Your task to perform on an android device: View the shopping cart on ebay.com. Search for dell alienware on ebay.com, select the first entry, and add it to the cart. Image 0: 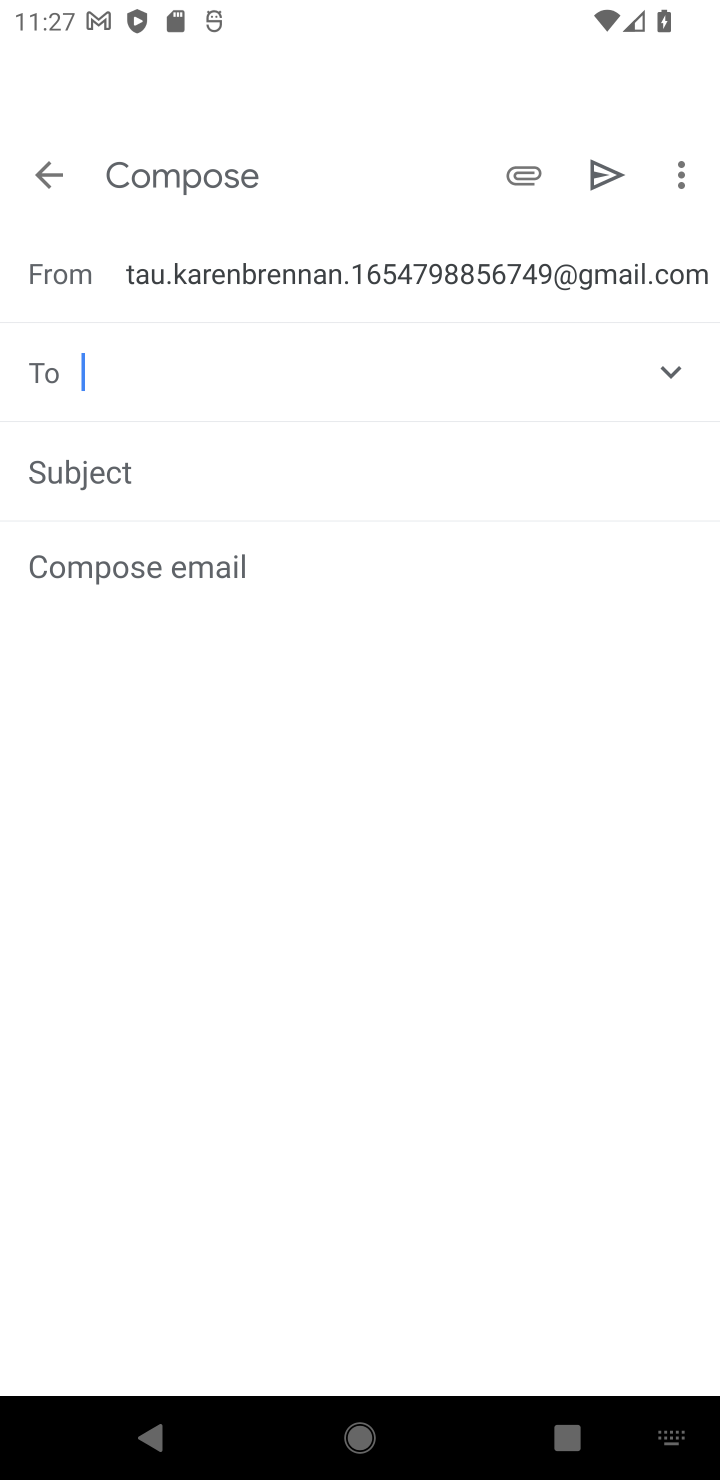
Step 0: press home button
Your task to perform on an android device: View the shopping cart on ebay.com. Search for dell alienware on ebay.com, select the first entry, and add it to the cart. Image 1: 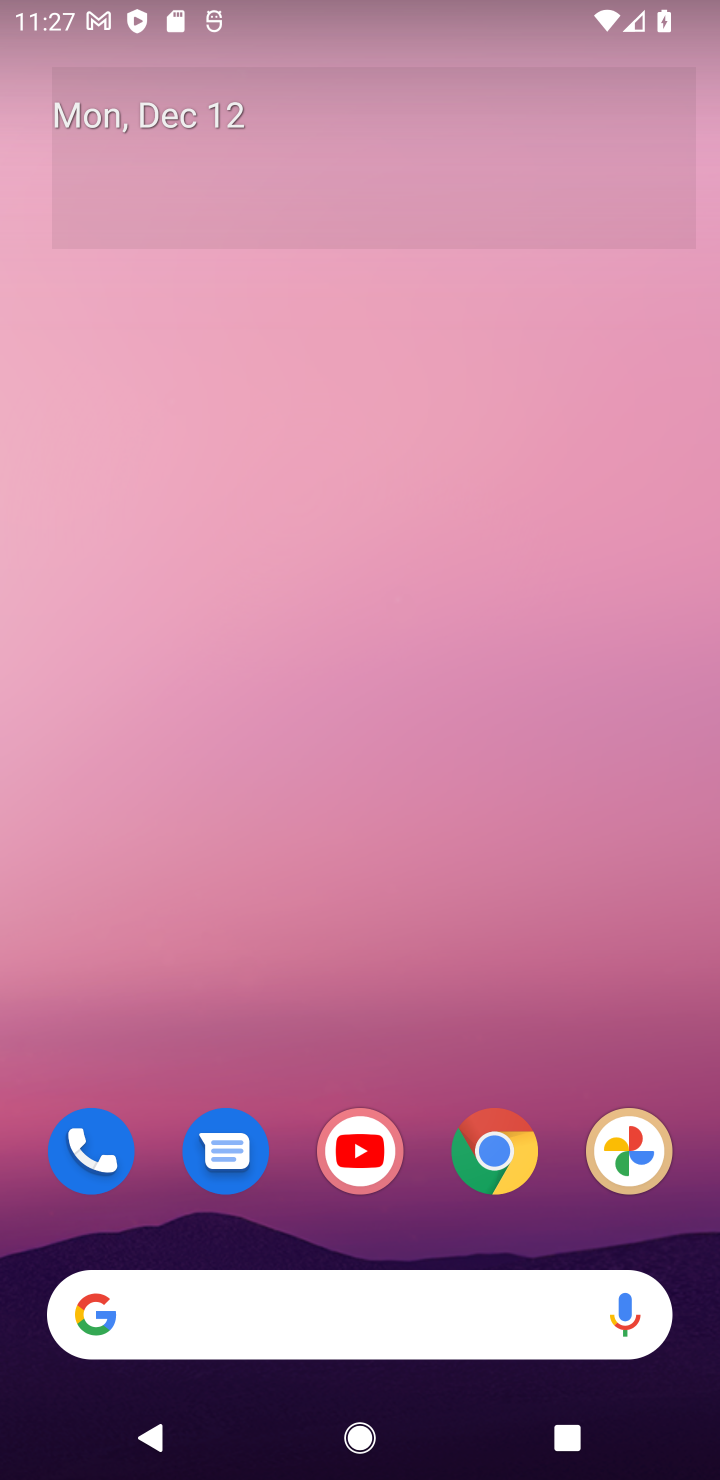
Step 1: drag from (224, 489) to (203, 127)
Your task to perform on an android device: View the shopping cart on ebay.com. Search for dell alienware on ebay.com, select the first entry, and add it to the cart. Image 2: 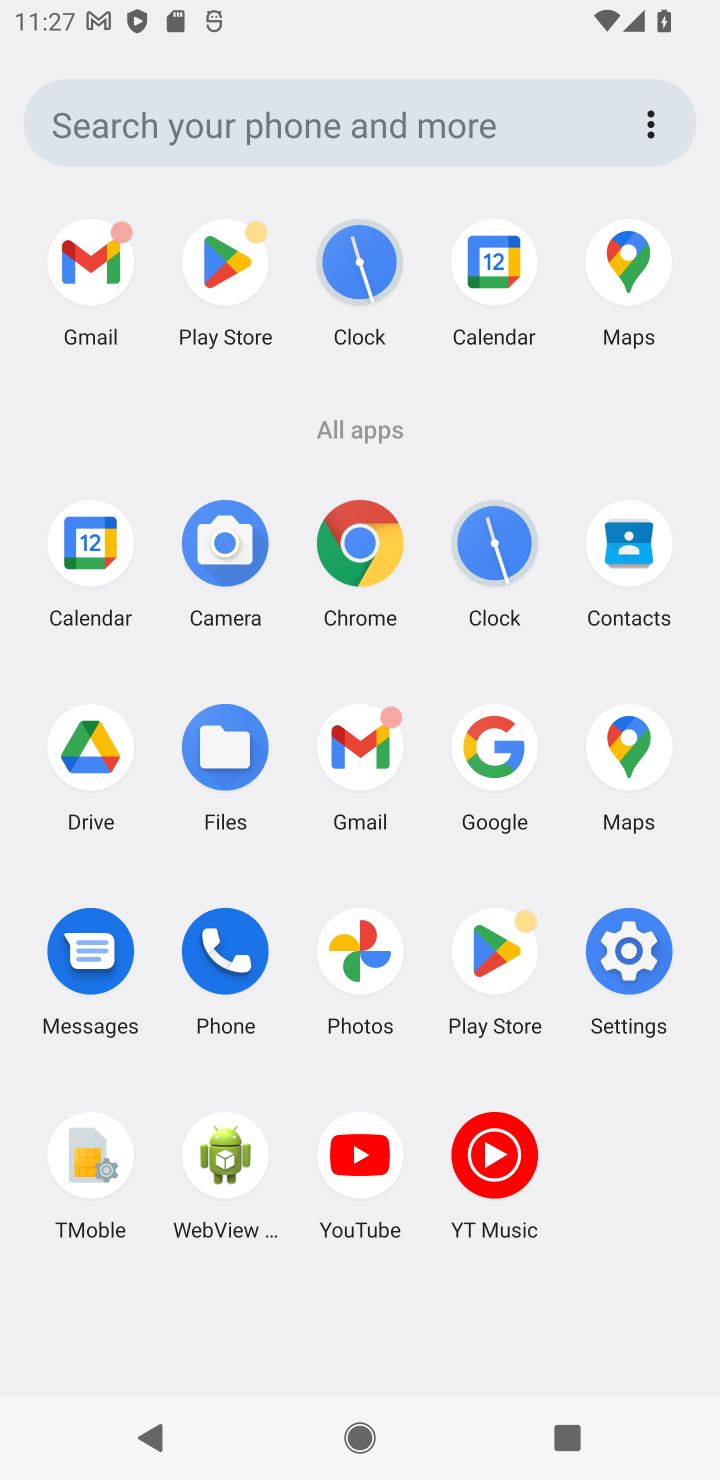
Step 2: click (518, 763)
Your task to perform on an android device: View the shopping cart on ebay.com. Search for dell alienware on ebay.com, select the first entry, and add it to the cart. Image 3: 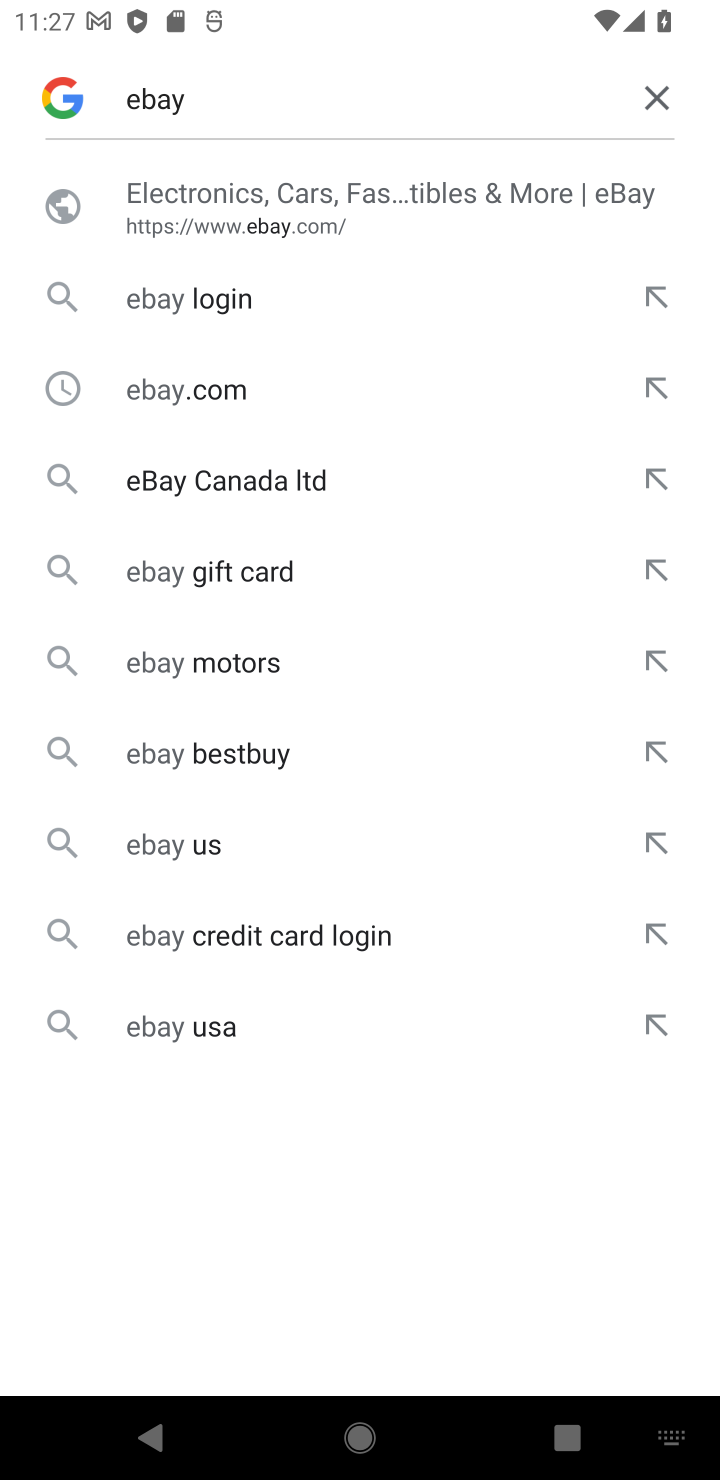
Step 3: click (664, 100)
Your task to perform on an android device: View the shopping cart on ebay.com. Search for dell alienware on ebay.com, select the first entry, and add it to the cart. Image 4: 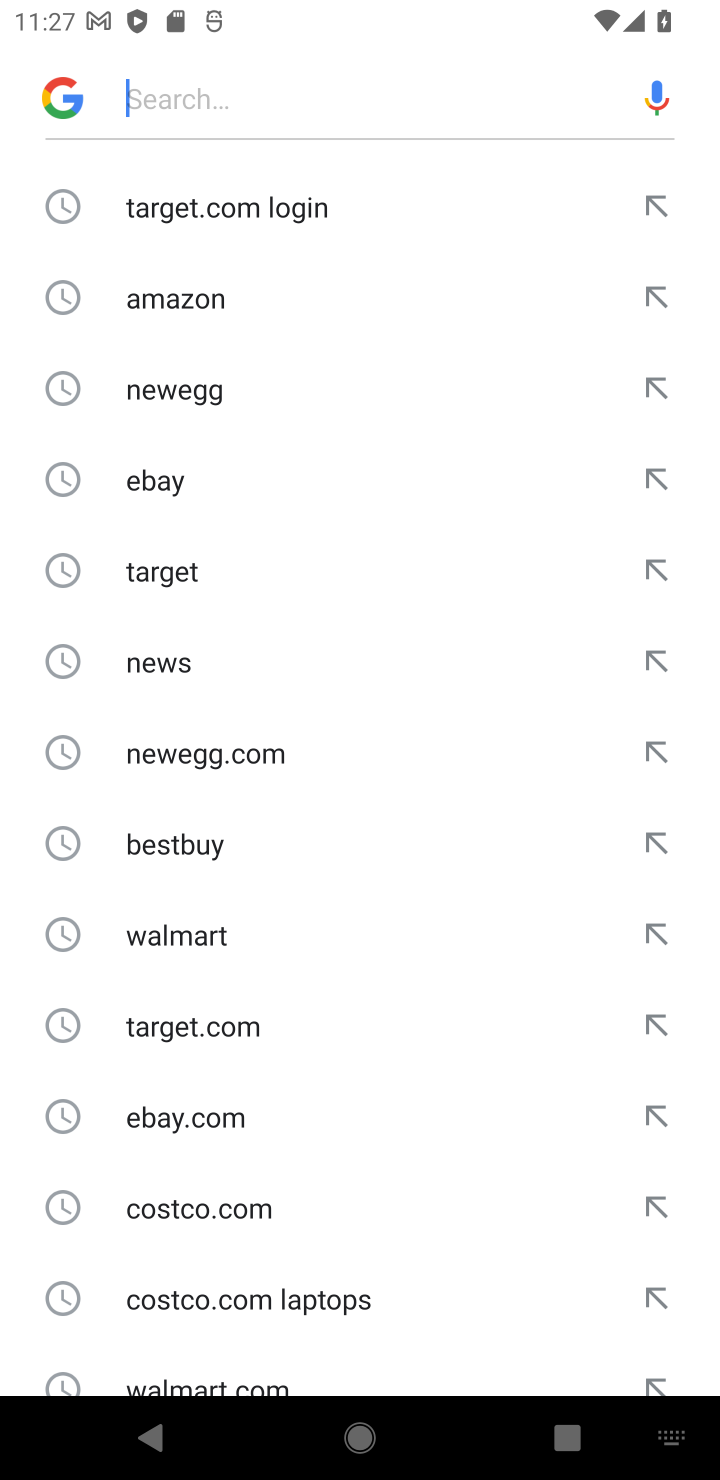
Step 4: click (161, 478)
Your task to perform on an android device: View the shopping cart on ebay.com. Search for dell alienware on ebay.com, select the first entry, and add it to the cart. Image 5: 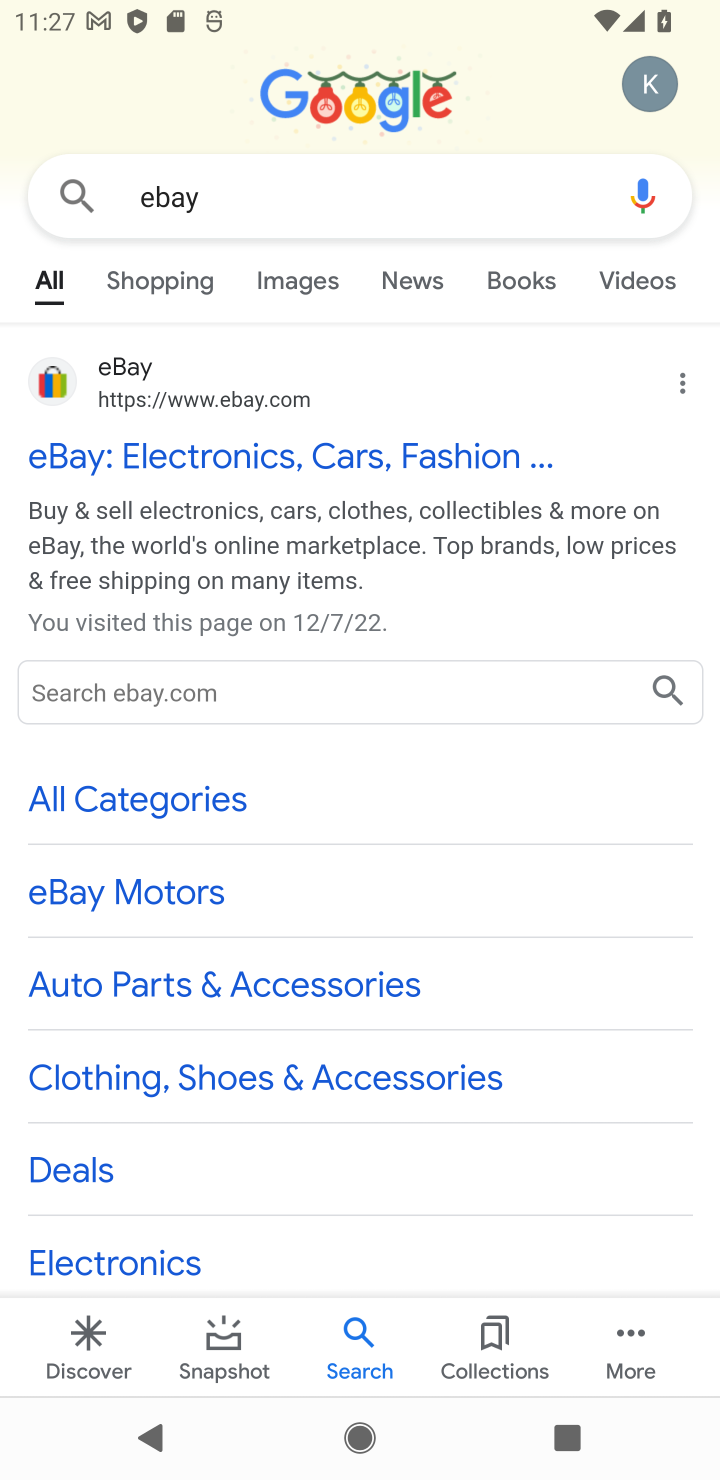
Step 5: click (225, 460)
Your task to perform on an android device: View the shopping cart on ebay.com. Search for dell alienware on ebay.com, select the first entry, and add it to the cart. Image 6: 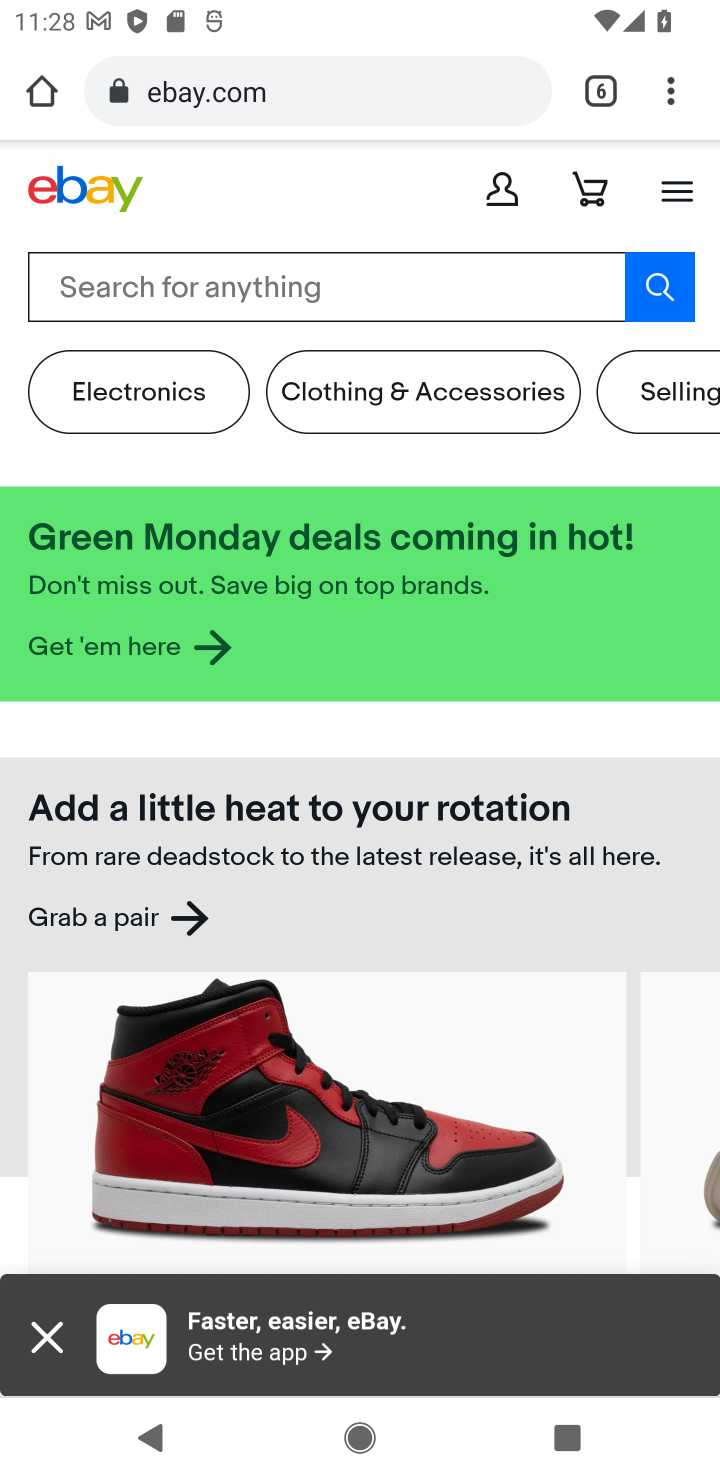
Step 6: click (264, 279)
Your task to perform on an android device: View the shopping cart on ebay.com. Search for dell alienware on ebay.com, select the first entry, and add it to the cart. Image 7: 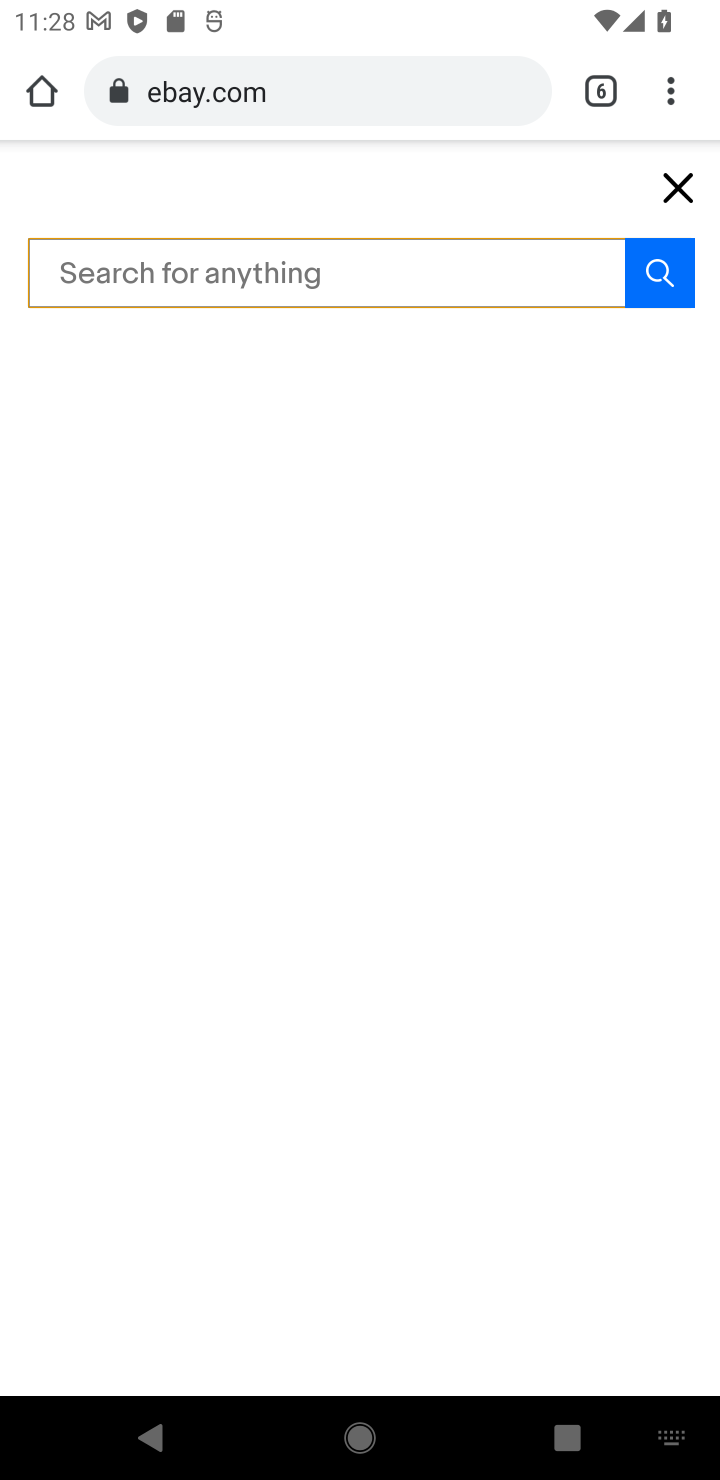
Step 7: type "dell alienware"
Your task to perform on an android device: View the shopping cart on ebay.com. Search for dell alienware on ebay.com, select the first entry, and add it to the cart. Image 8: 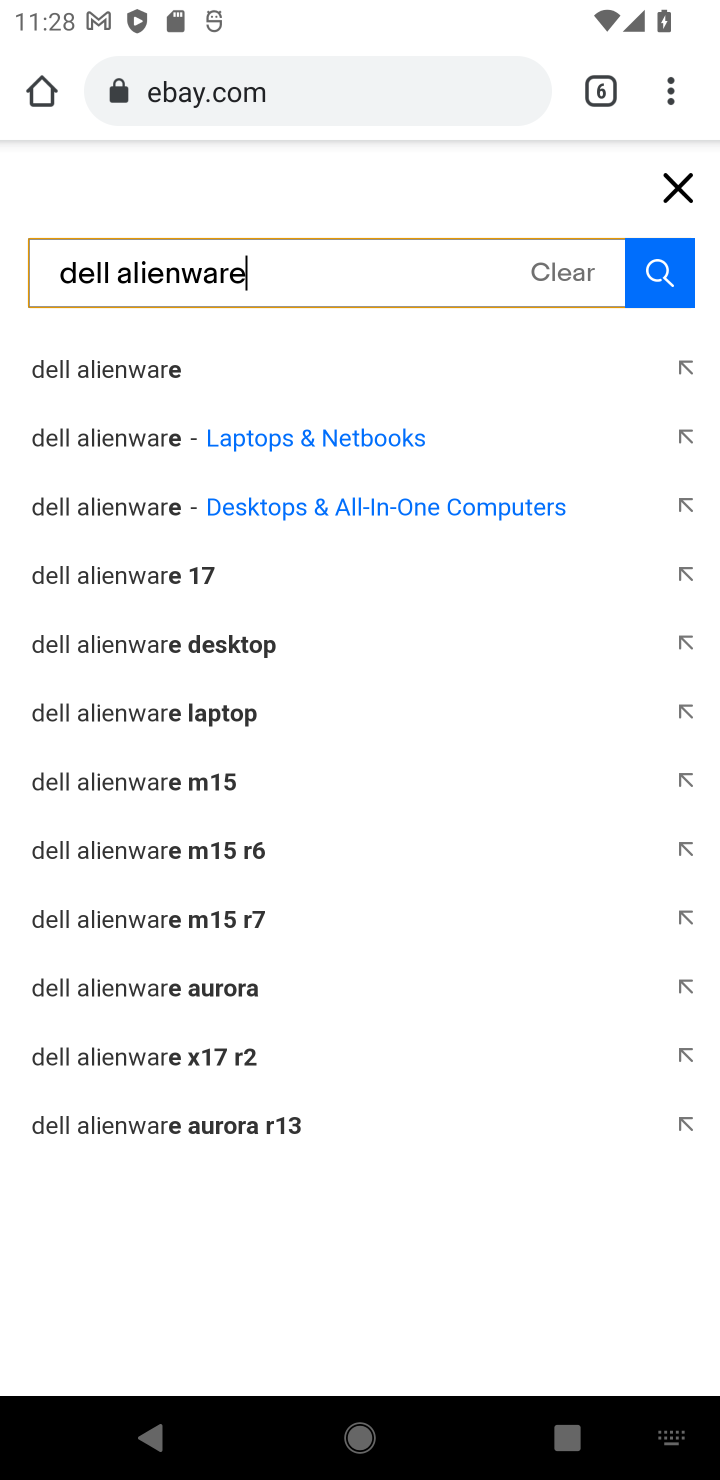
Step 8: click (75, 388)
Your task to perform on an android device: View the shopping cart on ebay.com. Search for dell alienware on ebay.com, select the first entry, and add it to the cart. Image 9: 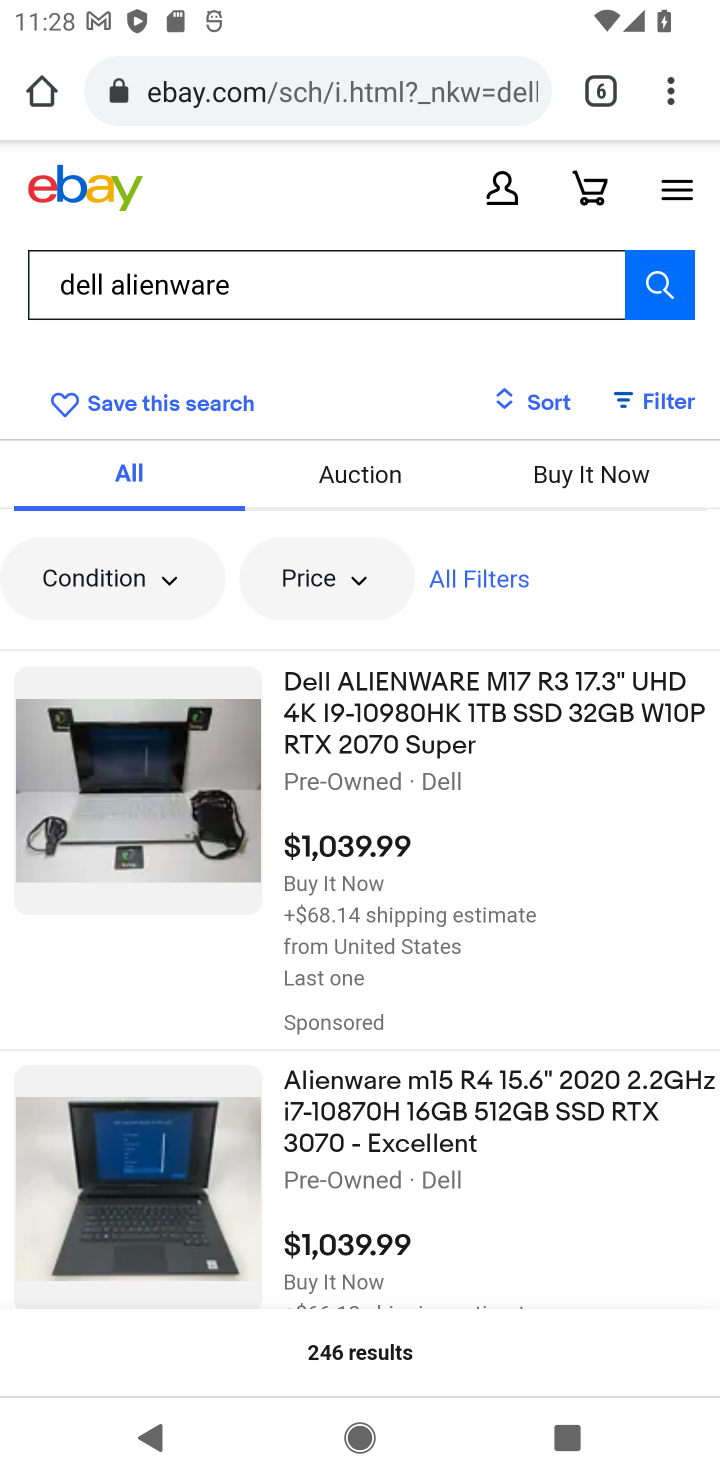
Step 9: click (421, 744)
Your task to perform on an android device: View the shopping cart on ebay.com. Search for dell alienware on ebay.com, select the first entry, and add it to the cart. Image 10: 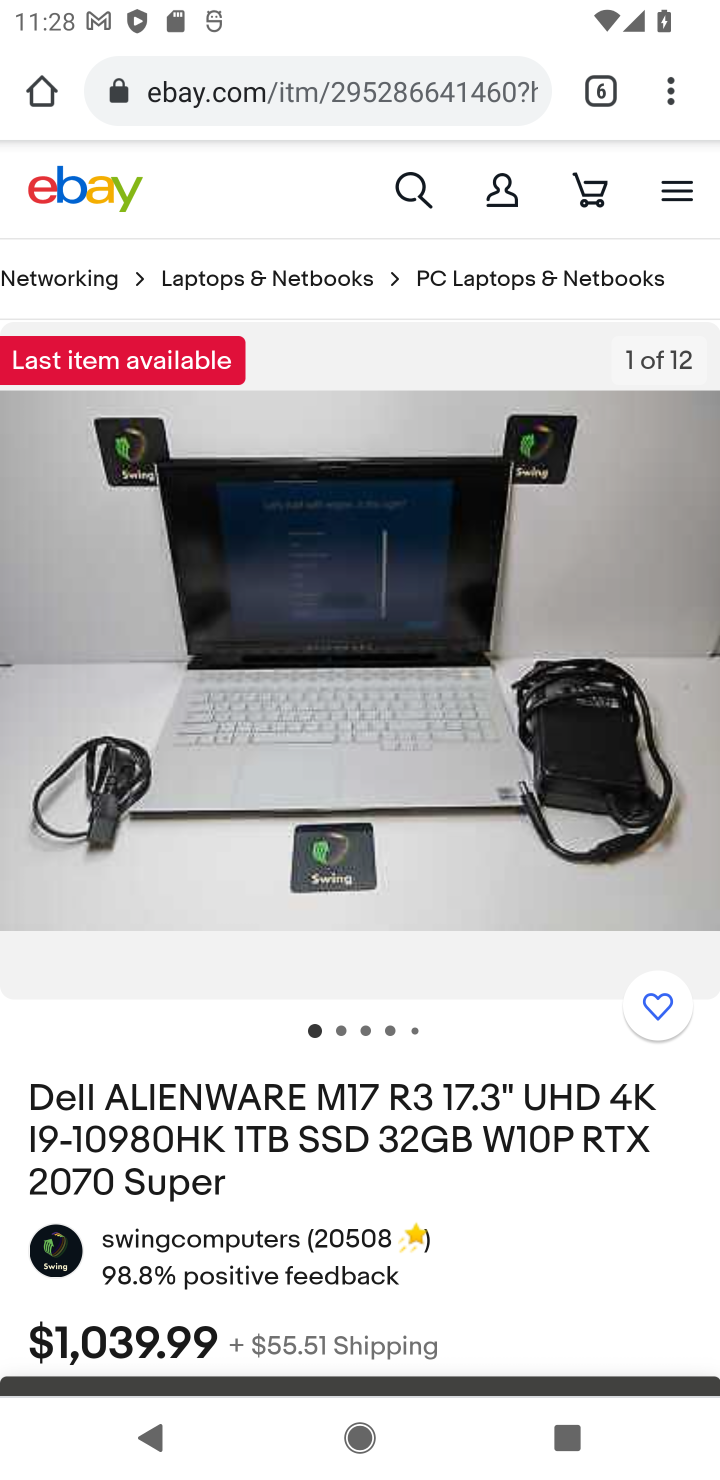
Step 10: drag from (394, 1075) to (405, 402)
Your task to perform on an android device: View the shopping cart on ebay.com. Search for dell alienware on ebay.com, select the first entry, and add it to the cart. Image 11: 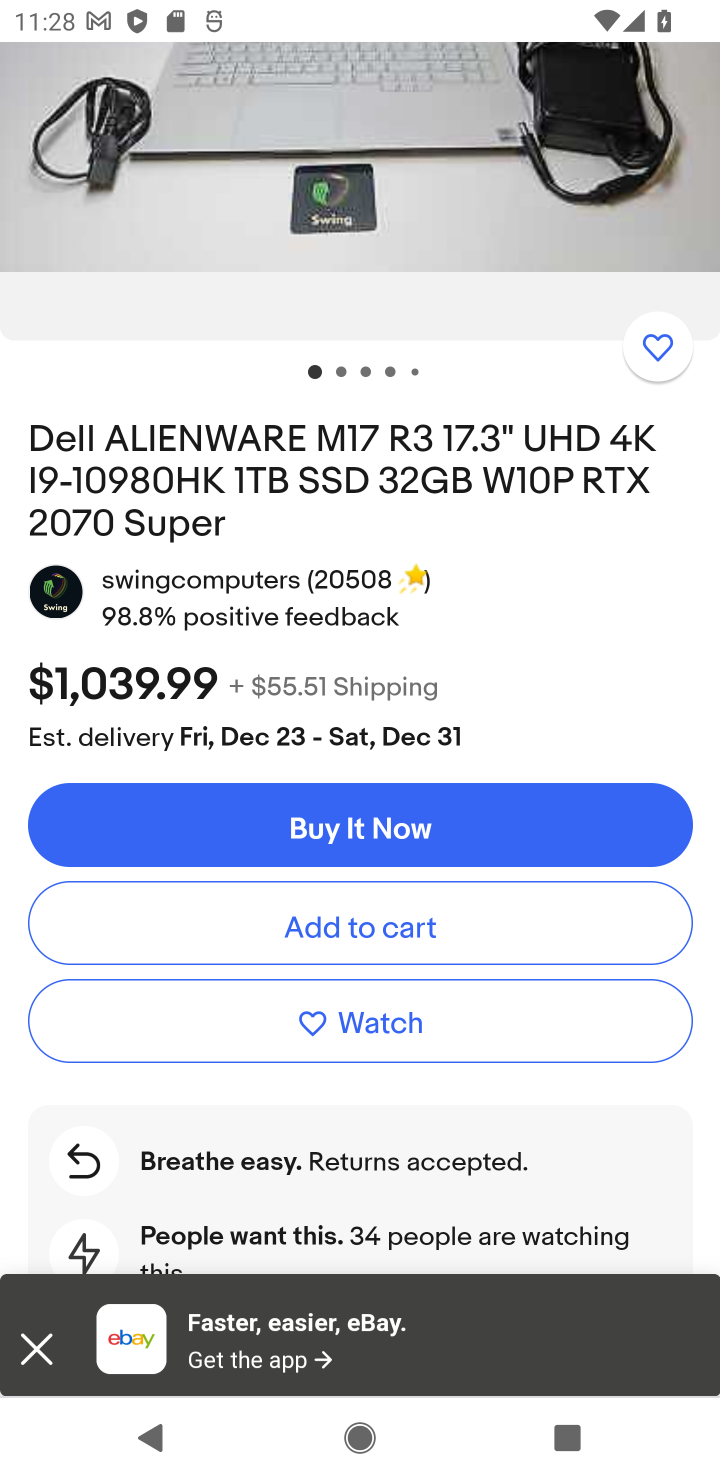
Step 11: click (362, 914)
Your task to perform on an android device: View the shopping cart on ebay.com. Search for dell alienware on ebay.com, select the first entry, and add it to the cart. Image 12: 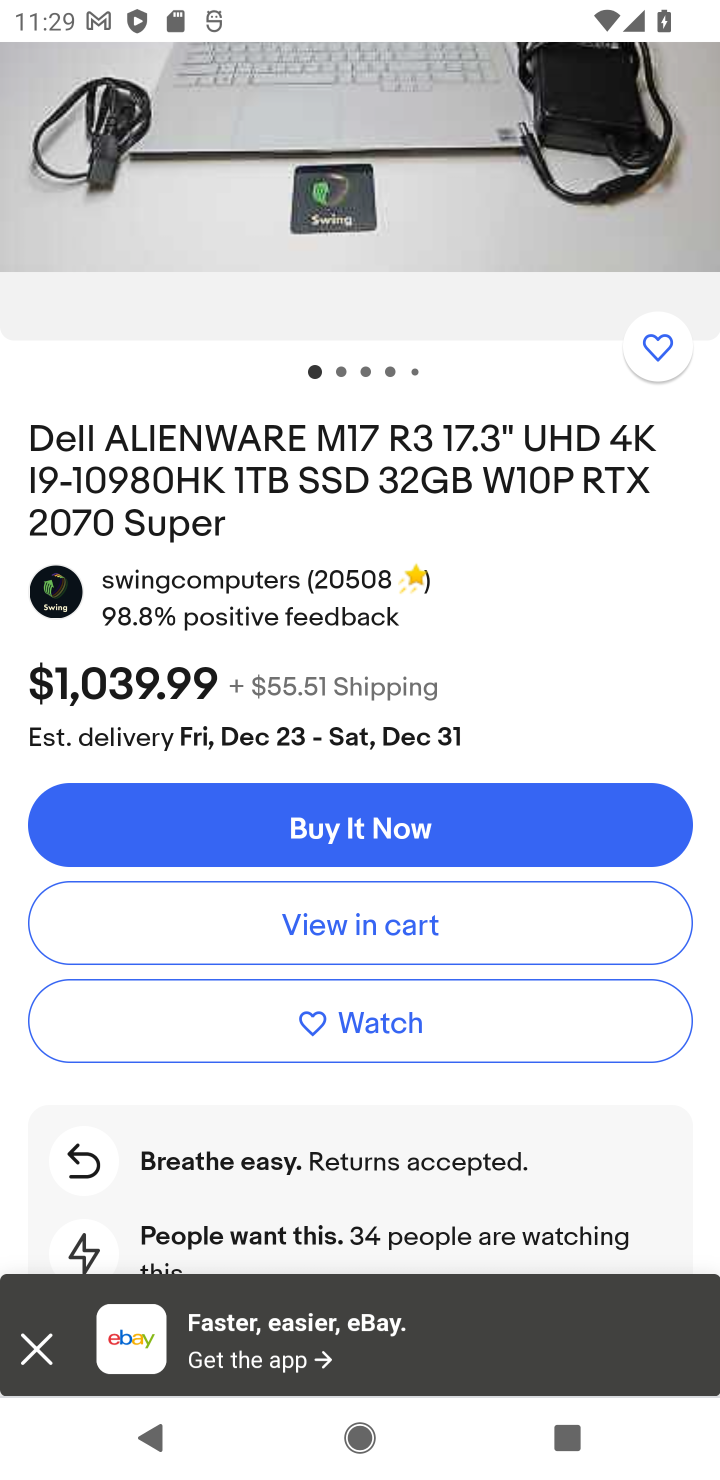
Step 12: click (371, 920)
Your task to perform on an android device: View the shopping cart on ebay.com. Search for dell alienware on ebay.com, select the first entry, and add it to the cart. Image 13: 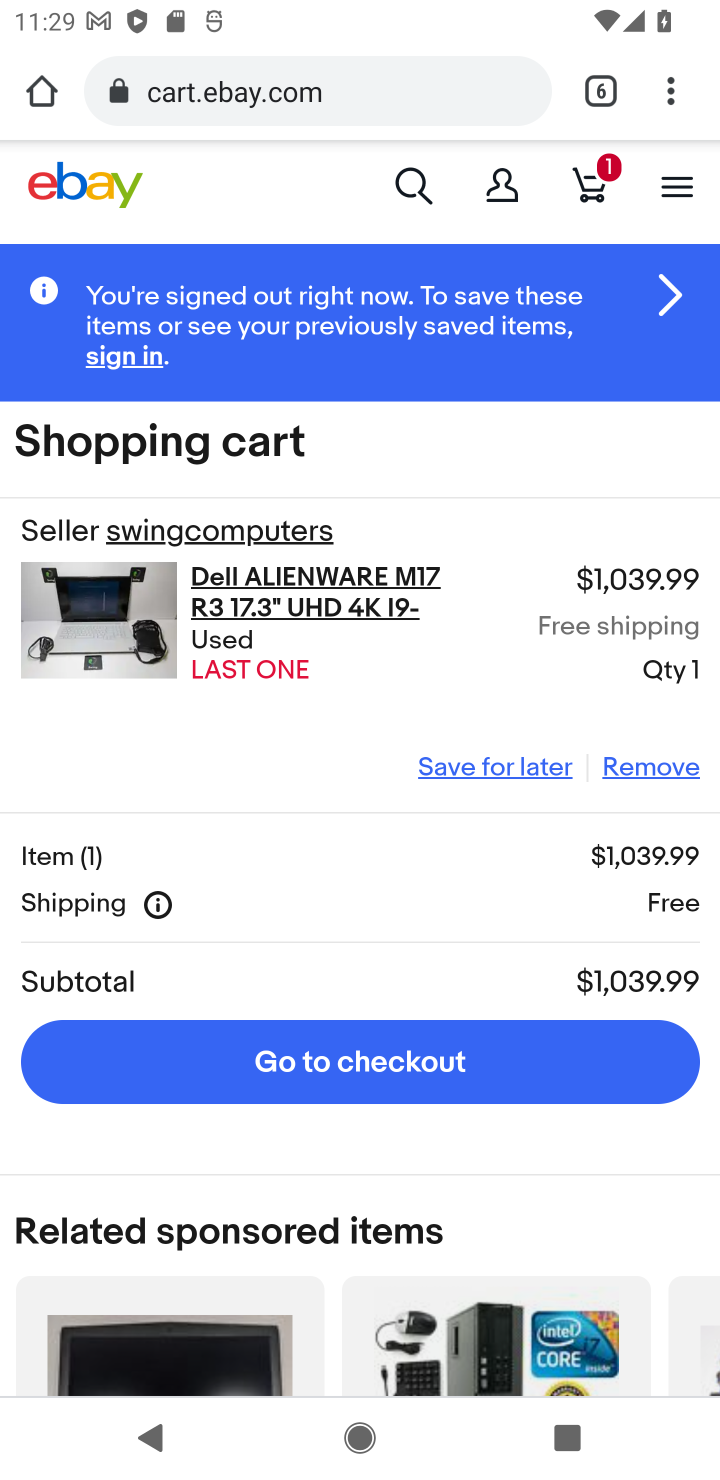
Step 13: click (363, 1069)
Your task to perform on an android device: View the shopping cart on ebay.com. Search for dell alienware on ebay.com, select the first entry, and add it to the cart. Image 14: 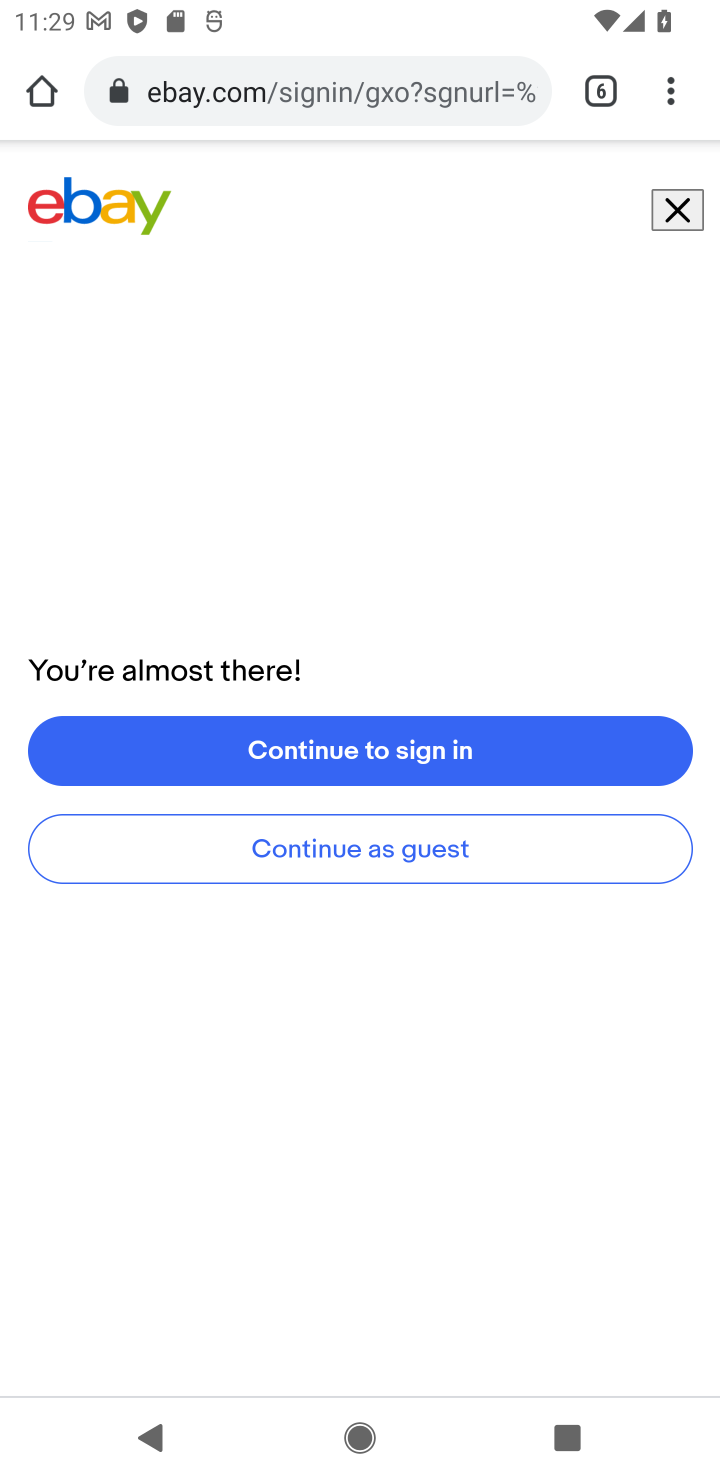
Step 14: task complete